Your task to perform on an android device: Open network settings Image 0: 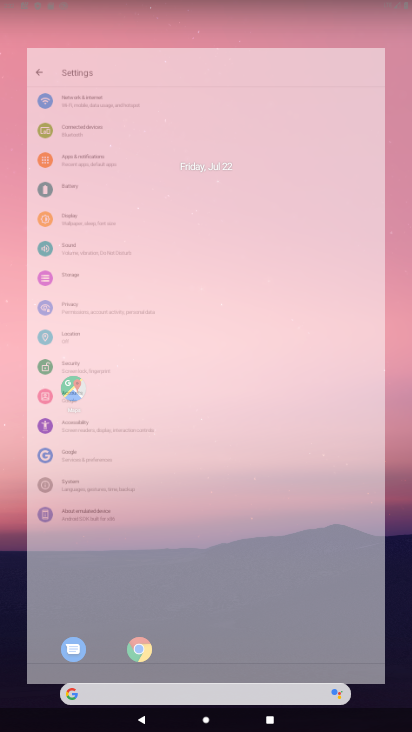
Step 0: drag from (174, 670) to (216, 293)
Your task to perform on an android device: Open network settings Image 1: 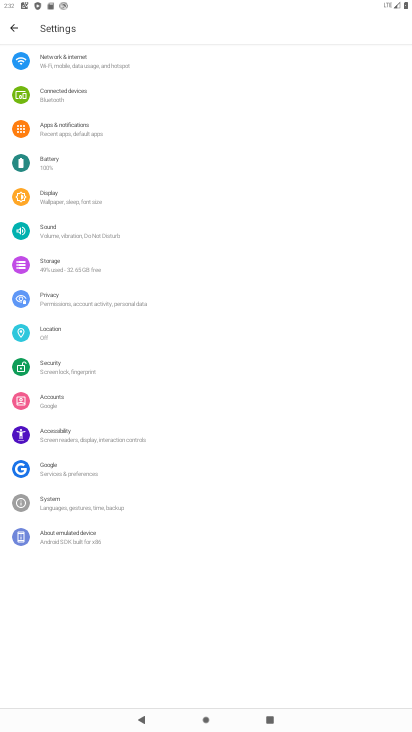
Step 1: drag from (225, 575) to (264, 303)
Your task to perform on an android device: Open network settings Image 2: 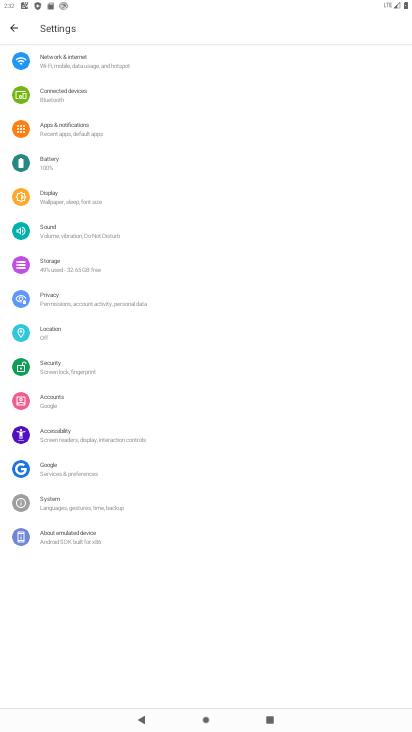
Step 2: drag from (144, 610) to (144, 377)
Your task to perform on an android device: Open network settings Image 3: 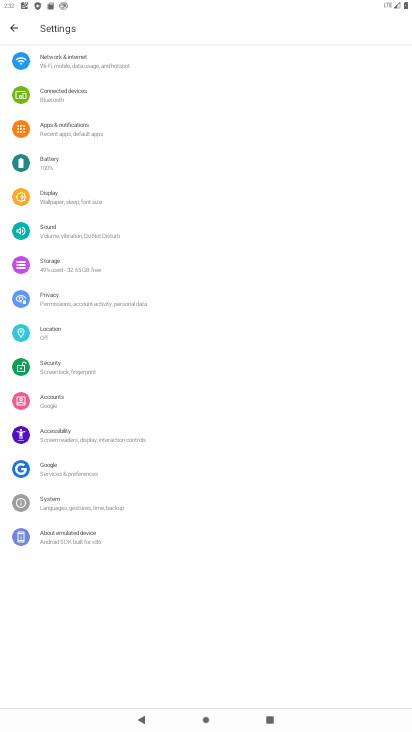
Step 3: click (121, 67)
Your task to perform on an android device: Open network settings Image 4: 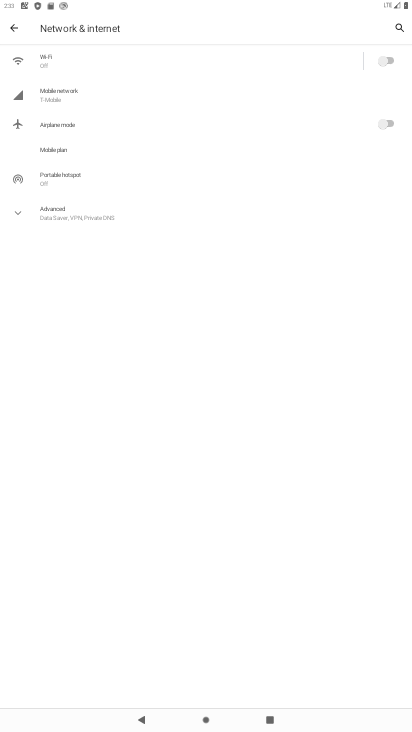
Step 4: drag from (194, 567) to (167, 412)
Your task to perform on an android device: Open network settings Image 5: 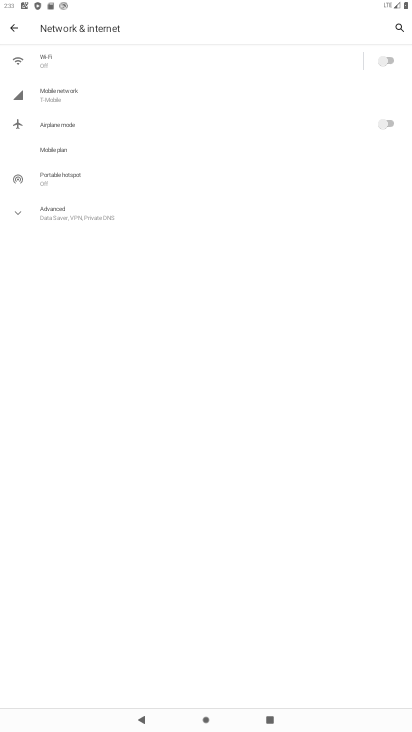
Step 5: drag from (108, 210) to (237, 619)
Your task to perform on an android device: Open network settings Image 6: 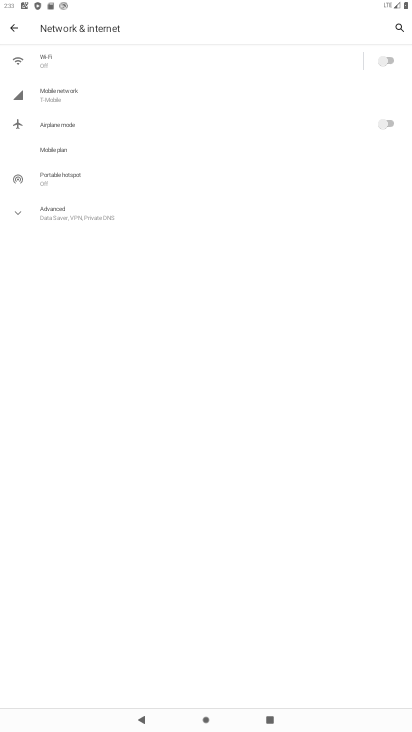
Step 6: drag from (182, 146) to (183, 344)
Your task to perform on an android device: Open network settings Image 7: 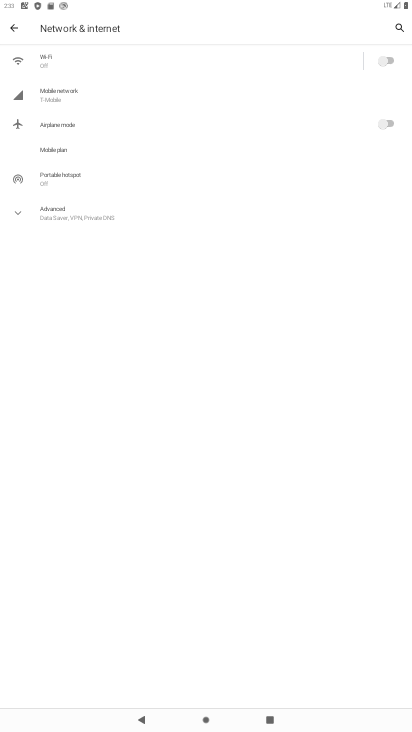
Step 7: click (88, 216)
Your task to perform on an android device: Open network settings Image 8: 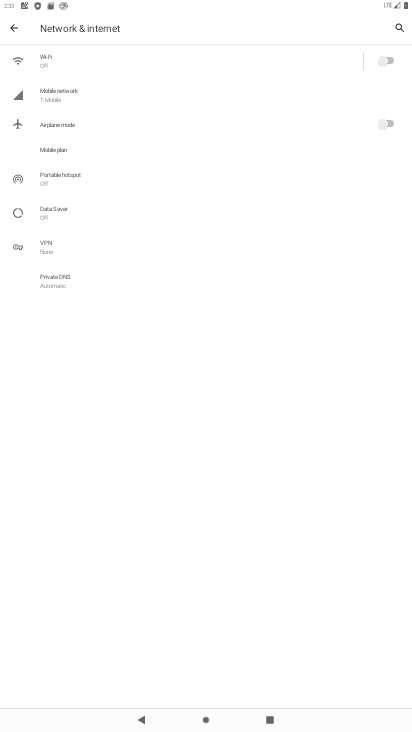
Step 8: task complete